Your task to perform on an android device: Go to privacy settings Image 0: 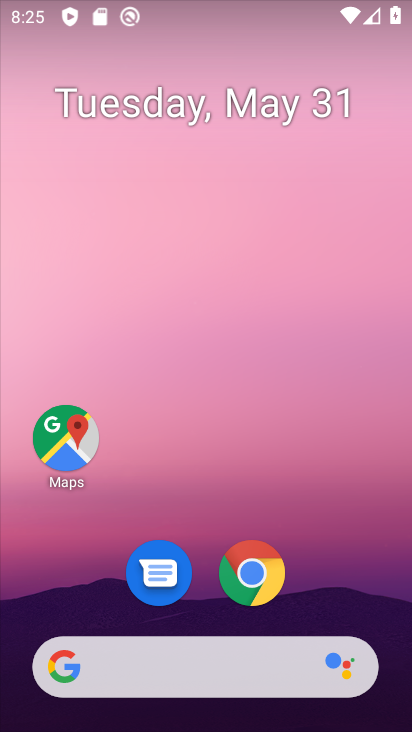
Step 0: drag from (217, 592) to (267, 17)
Your task to perform on an android device: Go to privacy settings Image 1: 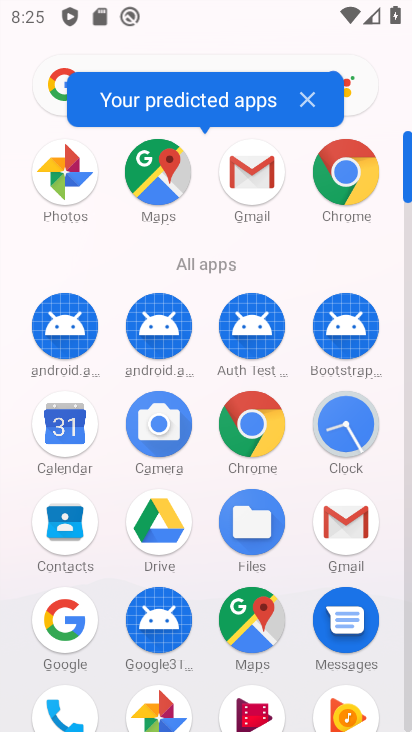
Step 1: drag from (221, 412) to (256, 103)
Your task to perform on an android device: Go to privacy settings Image 2: 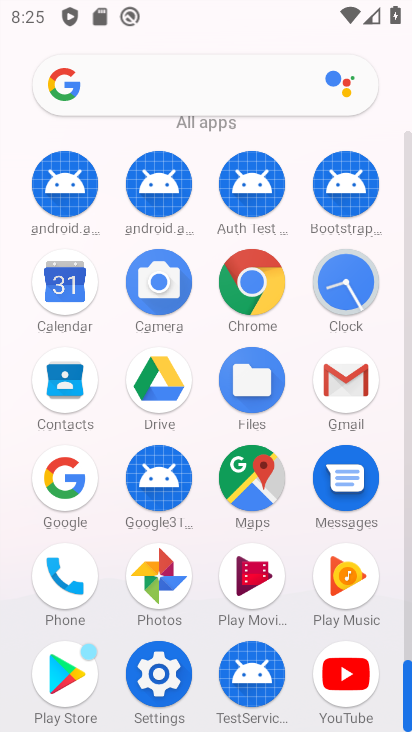
Step 2: click (165, 683)
Your task to perform on an android device: Go to privacy settings Image 3: 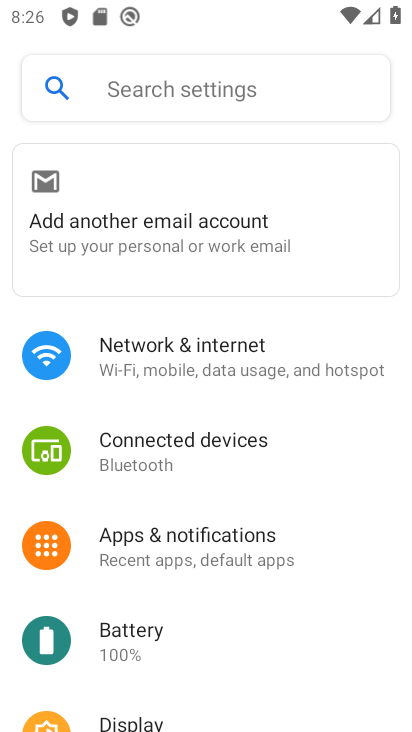
Step 3: drag from (105, 651) to (156, 319)
Your task to perform on an android device: Go to privacy settings Image 4: 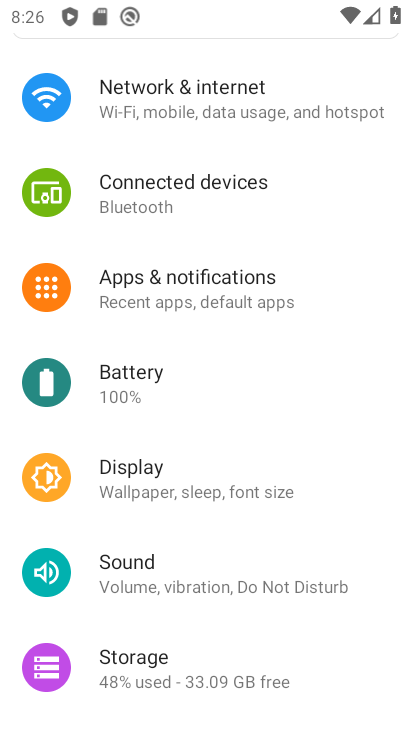
Step 4: drag from (177, 576) to (204, 97)
Your task to perform on an android device: Go to privacy settings Image 5: 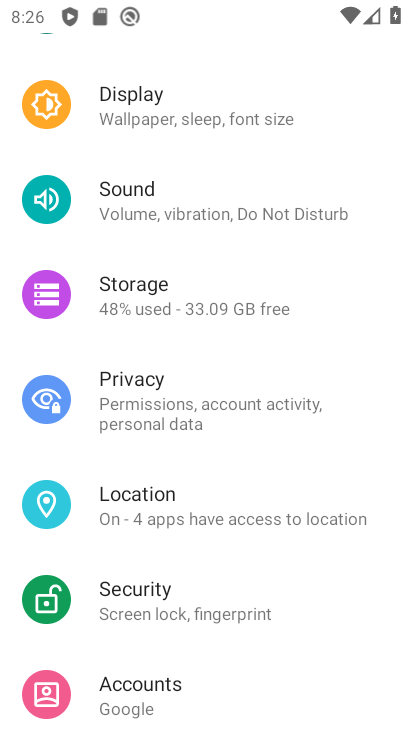
Step 5: click (170, 418)
Your task to perform on an android device: Go to privacy settings Image 6: 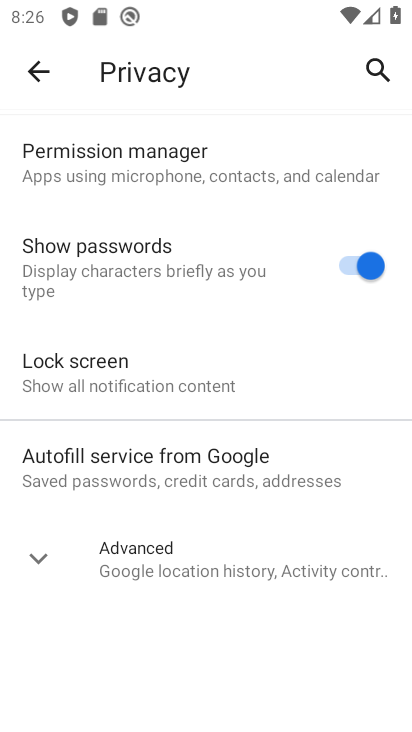
Step 6: task complete